Your task to perform on an android device: turn off javascript in the chrome app Image 0: 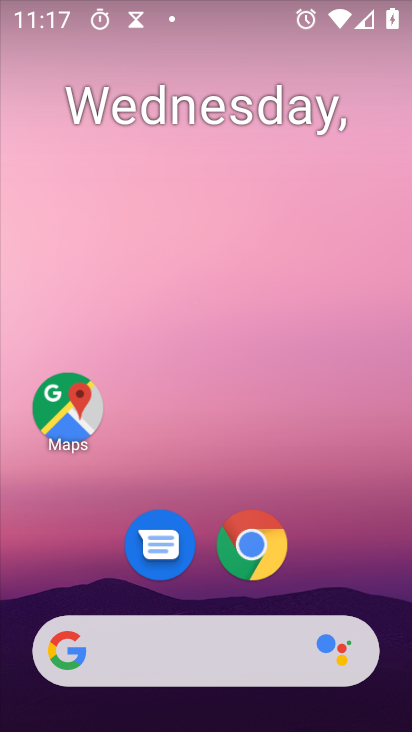
Step 0: click (254, 557)
Your task to perform on an android device: turn off javascript in the chrome app Image 1: 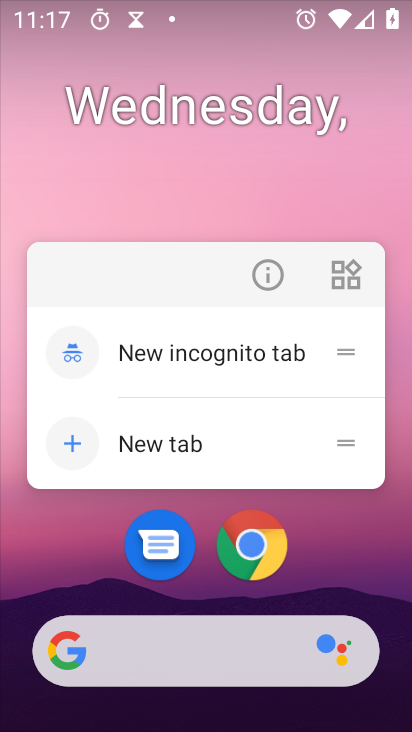
Step 1: click (256, 555)
Your task to perform on an android device: turn off javascript in the chrome app Image 2: 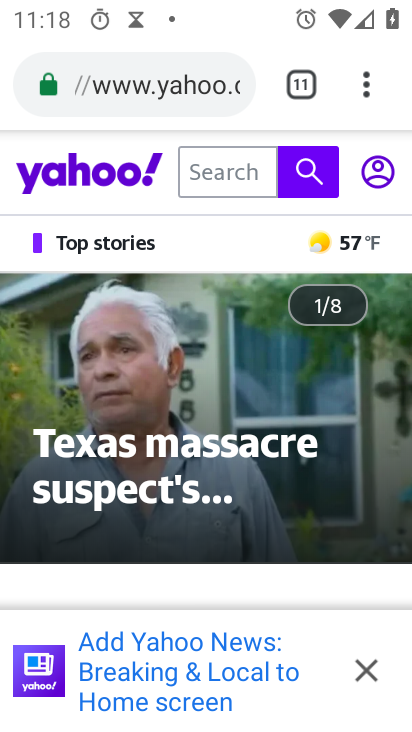
Step 2: drag from (363, 83) to (156, 603)
Your task to perform on an android device: turn off javascript in the chrome app Image 3: 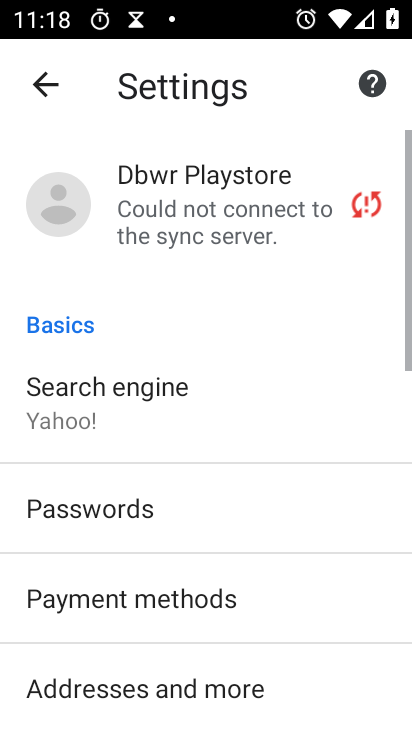
Step 3: drag from (159, 643) to (317, 75)
Your task to perform on an android device: turn off javascript in the chrome app Image 4: 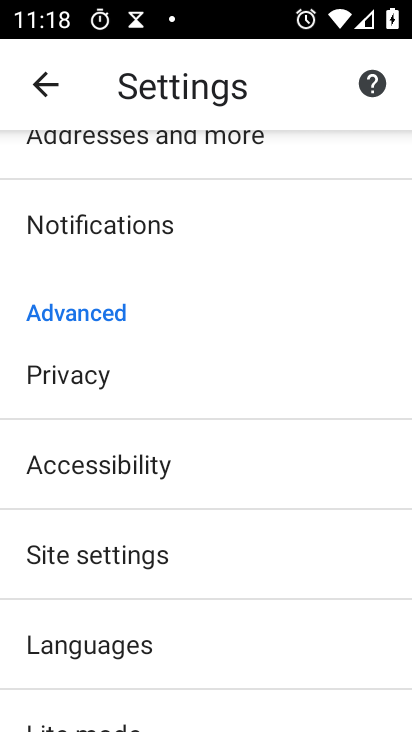
Step 4: click (167, 561)
Your task to perform on an android device: turn off javascript in the chrome app Image 5: 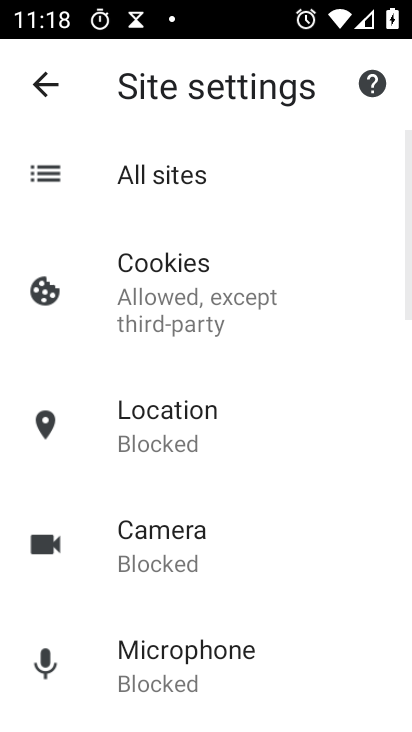
Step 5: drag from (214, 604) to (275, 162)
Your task to perform on an android device: turn off javascript in the chrome app Image 6: 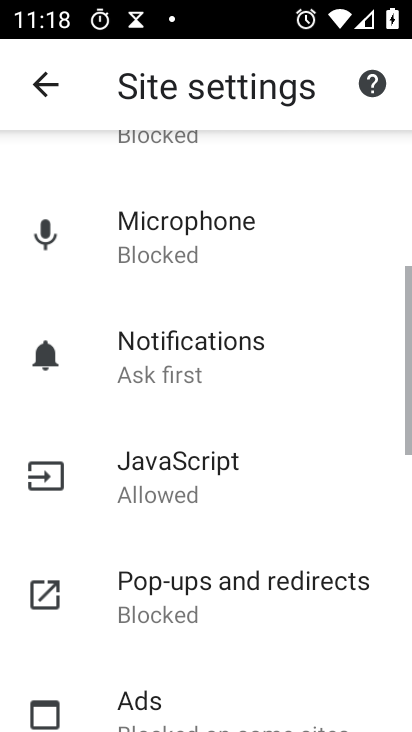
Step 6: click (181, 475)
Your task to perform on an android device: turn off javascript in the chrome app Image 7: 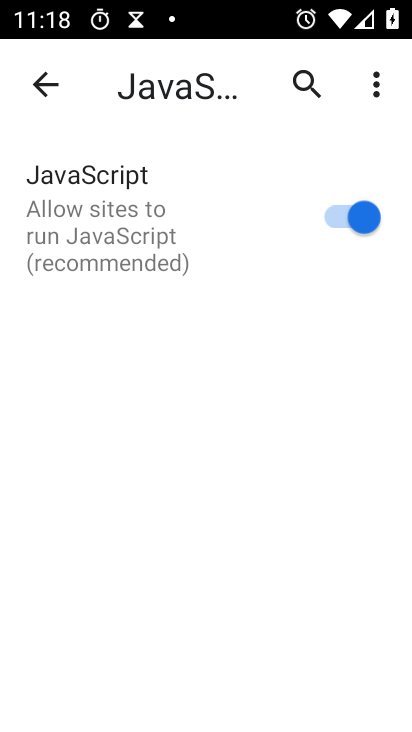
Step 7: click (344, 218)
Your task to perform on an android device: turn off javascript in the chrome app Image 8: 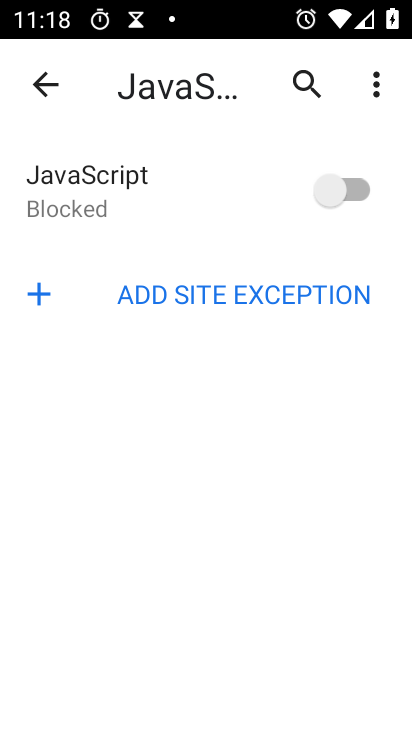
Step 8: task complete